Your task to perform on an android device: change text size in settings app Image 0: 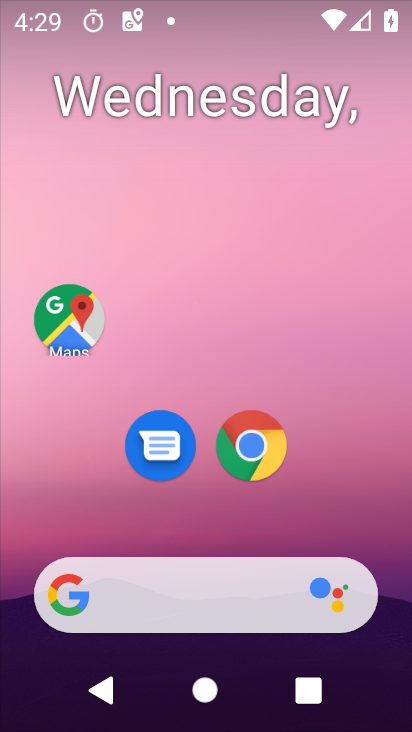
Step 0: drag from (208, 512) to (223, 84)
Your task to perform on an android device: change text size in settings app Image 1: 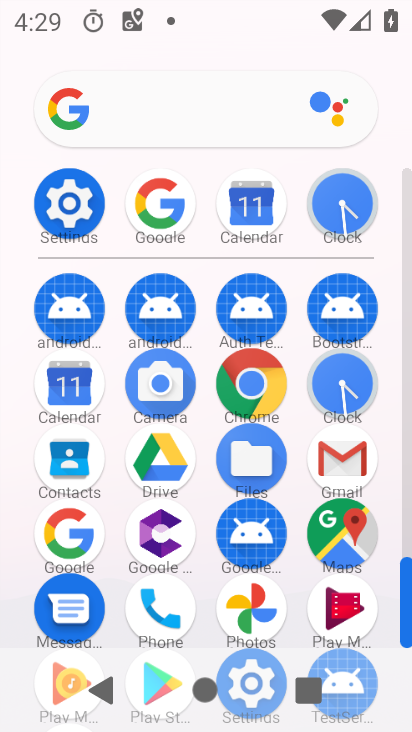
Step 1: click (62, 197)
Your task to perform on an android device: change text size in settings app Image 2: 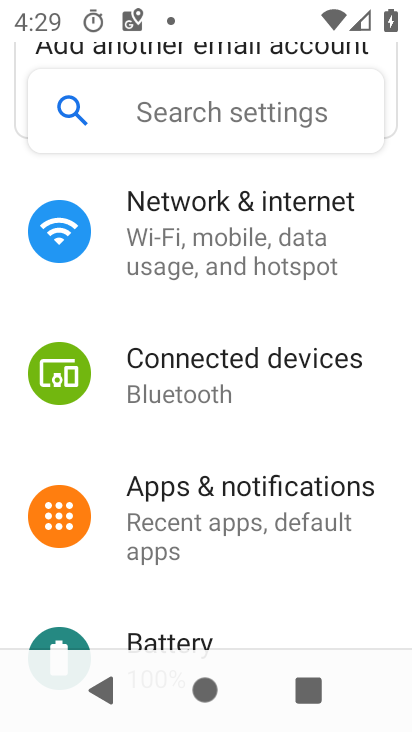
Step 2: click (201, 241)
Your task to perform on an android device: change text size in settings app Image 3: 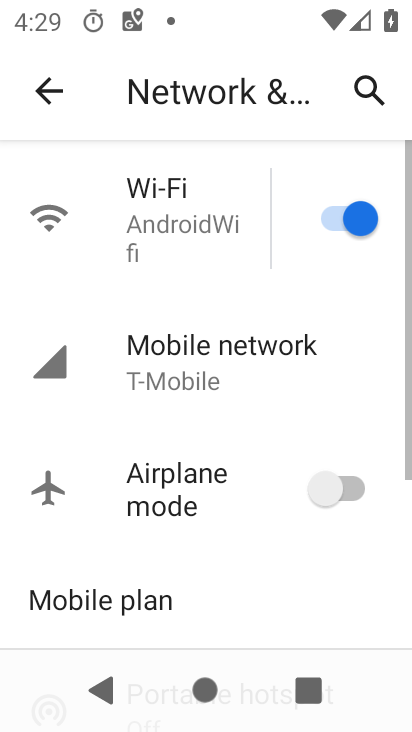
Step 3: drag from (140, 500) to (219, 6)
Your task to perform on an android device: change text size in settings app Image 4: 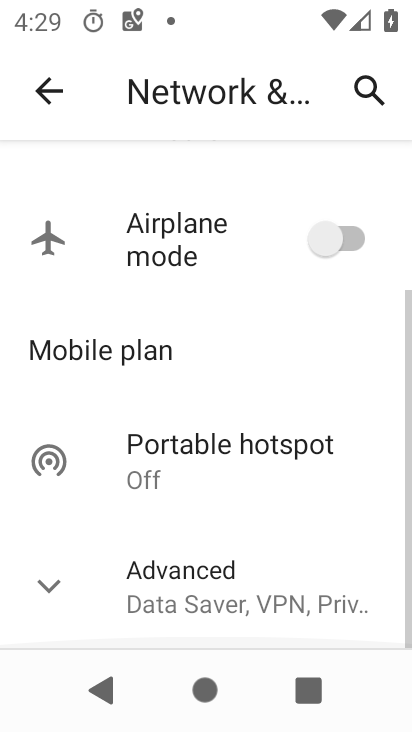
Step 4: drag from (208, 522) to (242, 174)
Your task to perform on an android device: change text size in settings app Image 5: 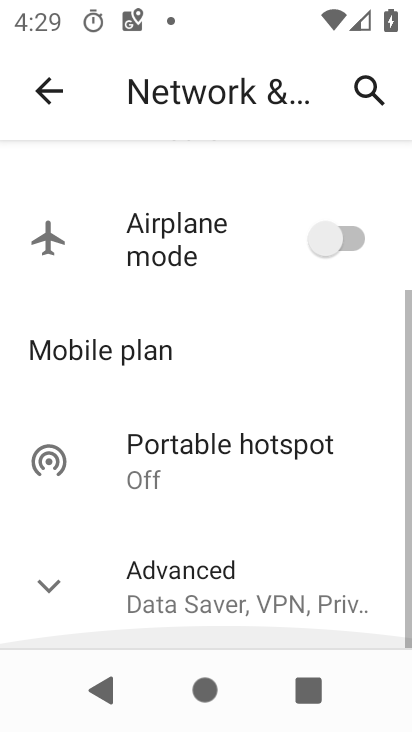
Step 5: click (178, 596)
Your task to perform on an android device: change text size in settings app Image 6: 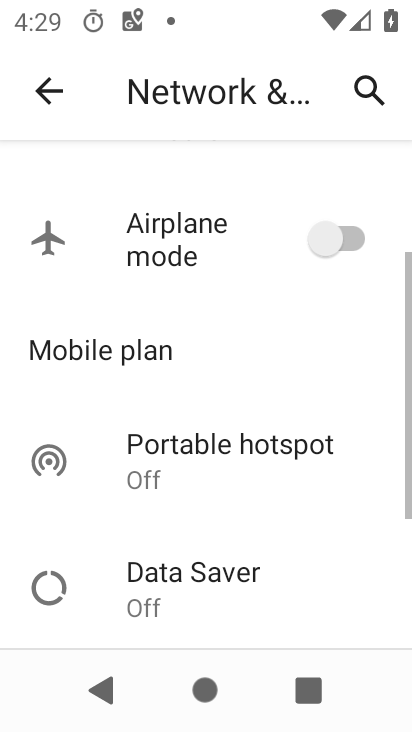
Step 6: task complete